Your task to perform on an android device: change alarm snooze length Image 0: 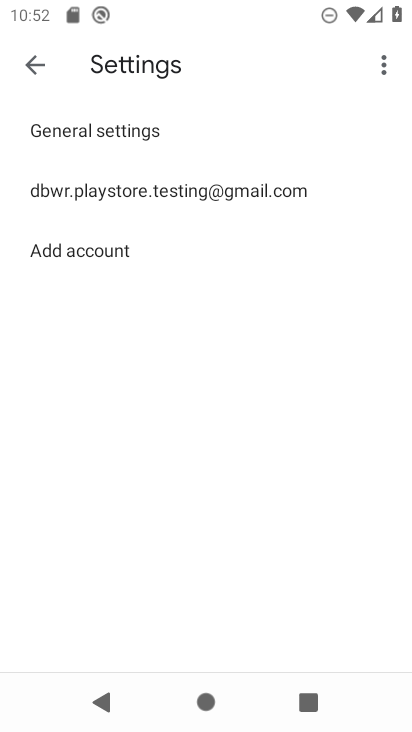
Step 0: press home button
Your task to perform on an android device: change alarm snooze length Image 1: 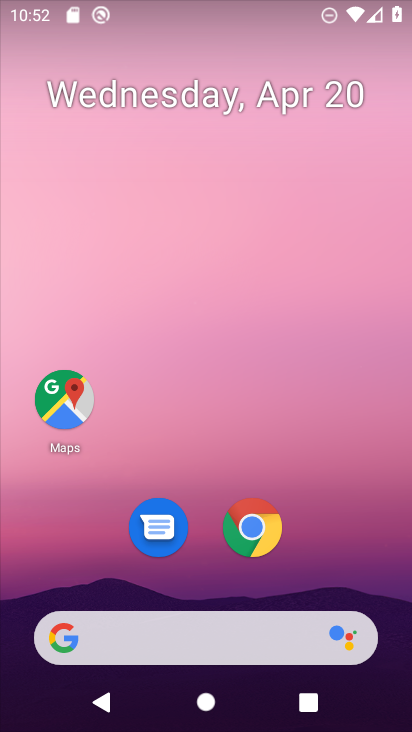
Step 1: drag from (215, 567) to (378, 0)
Your task to perform on an android device: change alarm snooze length Image 2: 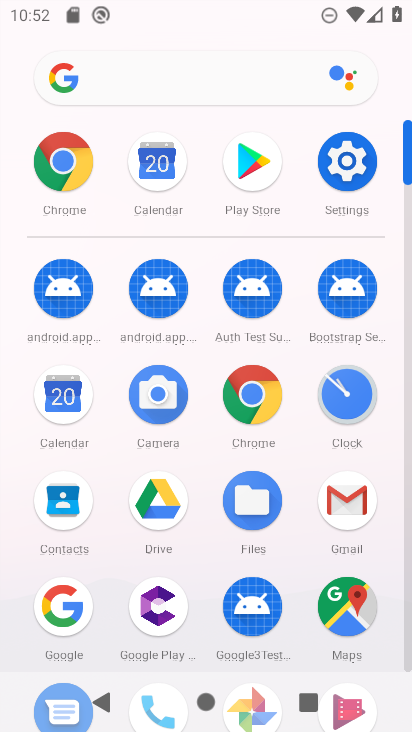
Step 2: click (365, 393)
Your task to perform on an android device: change alarm snooze length Image 3: 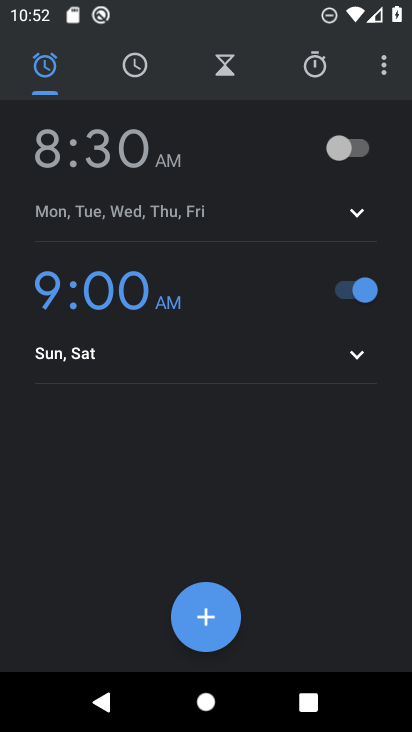
Step 3: click (385, 69)
Your task to perform on an android device: change alarm snooze length Image 4: 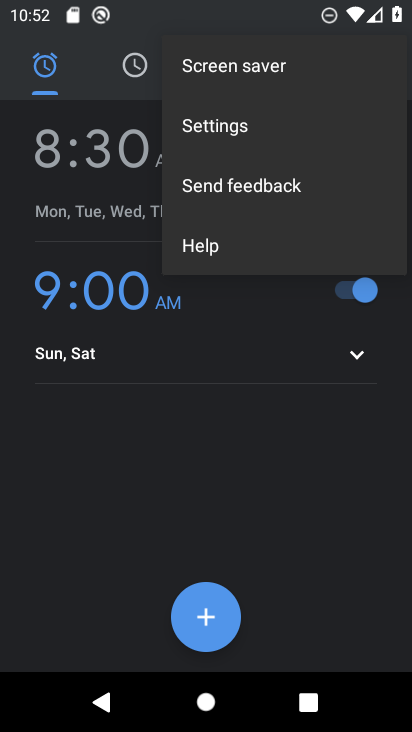
Step 4: click (220, 135)
Your task to perform on an android device: change alarm snooze length Image 5: 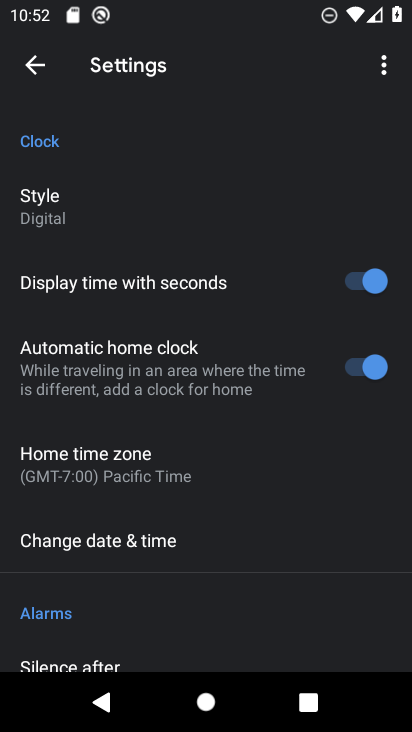
Step 5: drag from (98, 557) to (185, 283)
Your task to perform on an android device: change alarm snooze length Image 6: 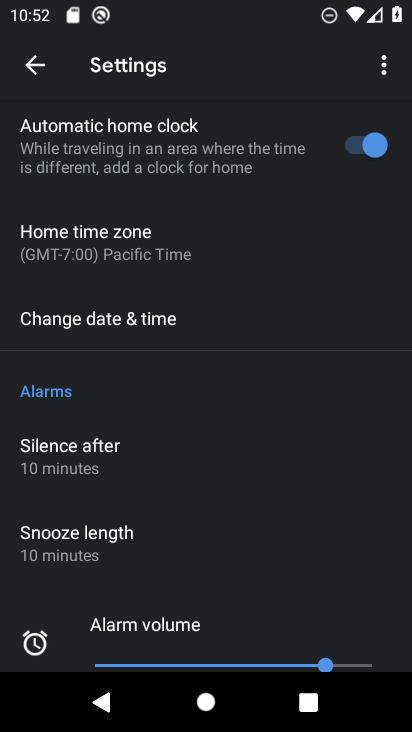
Step 6: click (88, 553)
Your task to perform on an android device: change alarm snooze length Image 7: 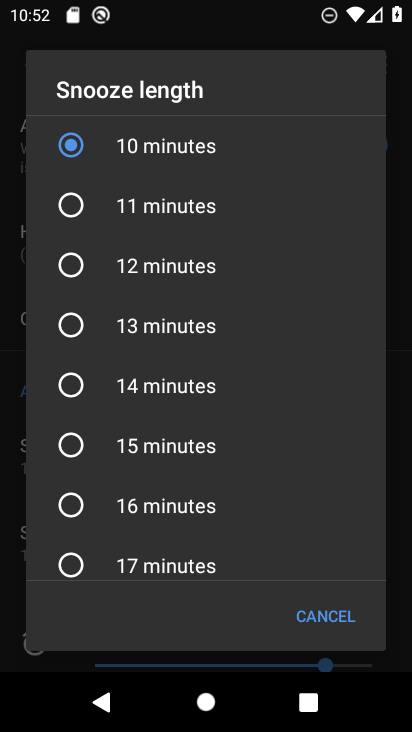
Step 7: click (76, 396)
Your task to perform on an android device: change alarm snooze length Image 8: 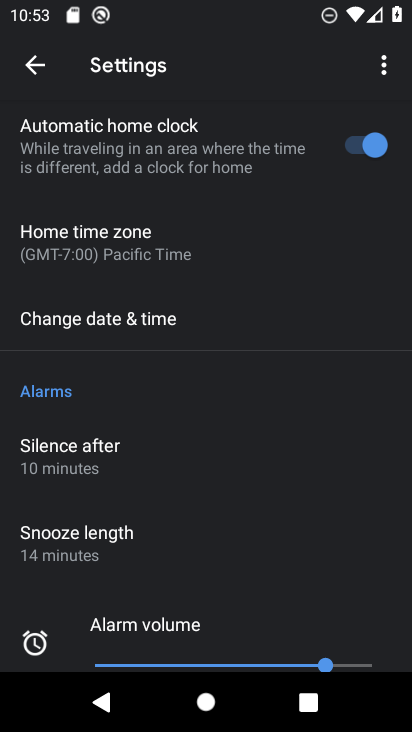
Step 8: task complete